Your task to perform on an android device: Show me productivity apps on the Play Store Image 0: 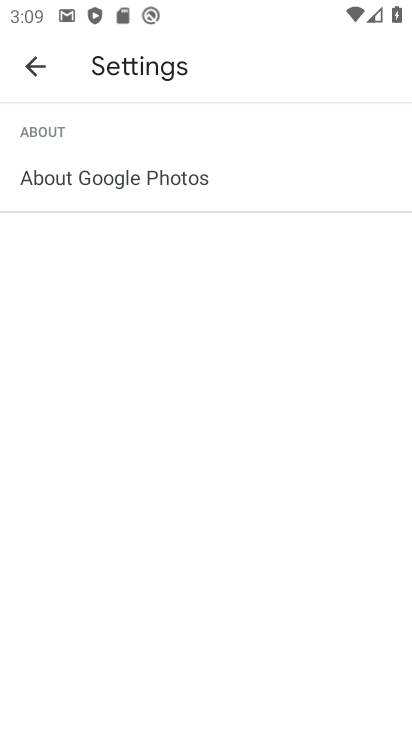
Step 0: press home button
Your task to perform on an android device: Show me productivity apps on the Play Store Image 1: 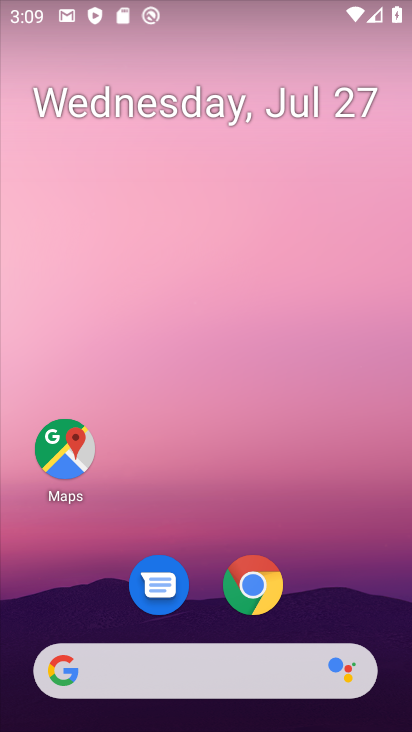
Step 1: drag from (321, 592) to (304, 31)
Your task to perform on an android device: Show me productivity apps on the Play Store Image 2: 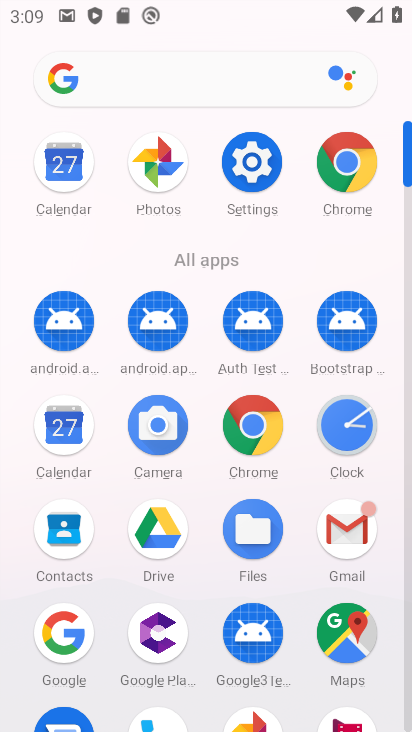
Step 2: drag from (198, 604) to (204, 191)
Your task to perform on an android device: Show me productivity apps on the Play Store Image 3: 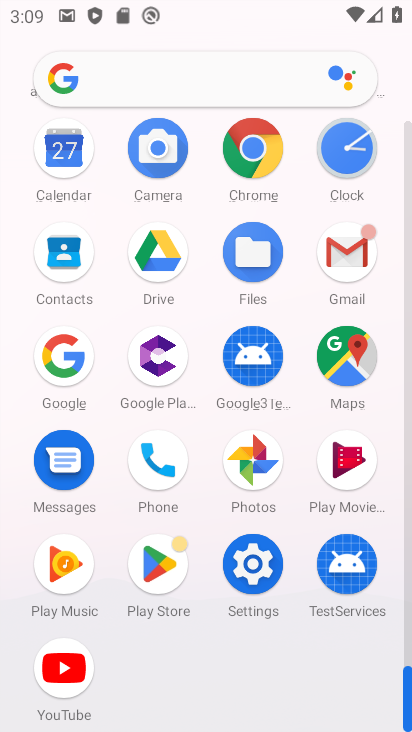
Step 3: click (174, 569)
Your task to perform on an android device: Show me productivity apps on the Play Store Image 4: 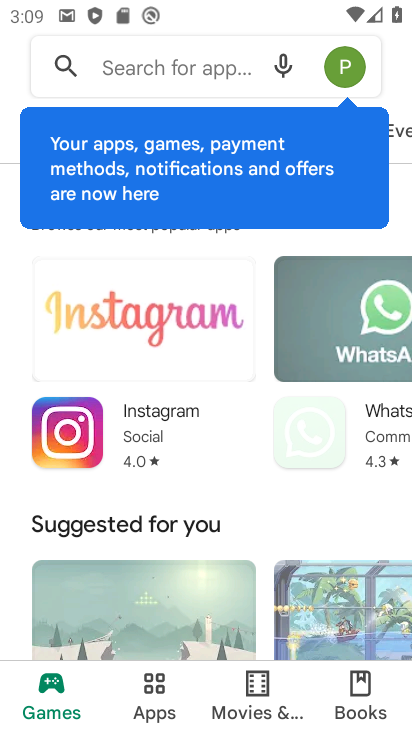
Step 4: click (161, 695)
Your task to perform on an android device: Show me productivity apps on the Play Store Image 5: 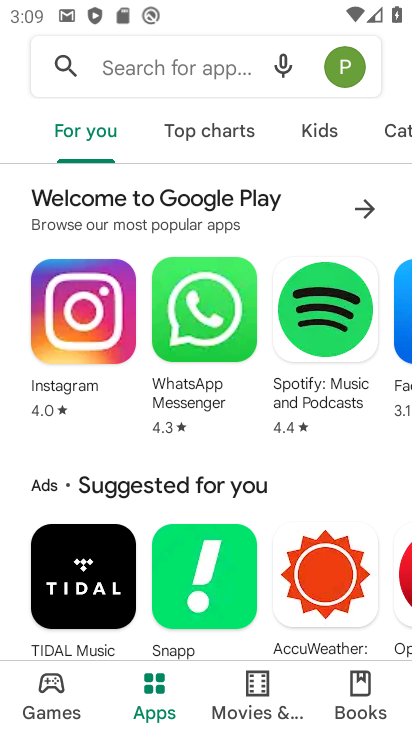
Step 5: click (391, 125)
Your task to perform on an android device: Show me productivity apps on the Play Store Image 6: 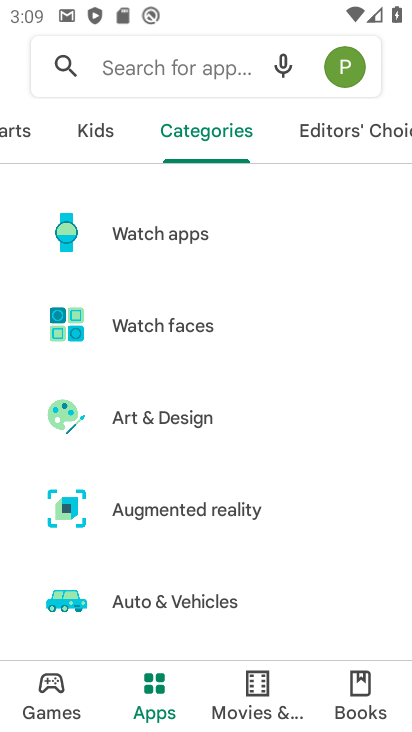
Step 6: drag from (286, 554) to (277, 26)
Your task to perform on an android device: Show me productivity apps on the Play Store Image 7: 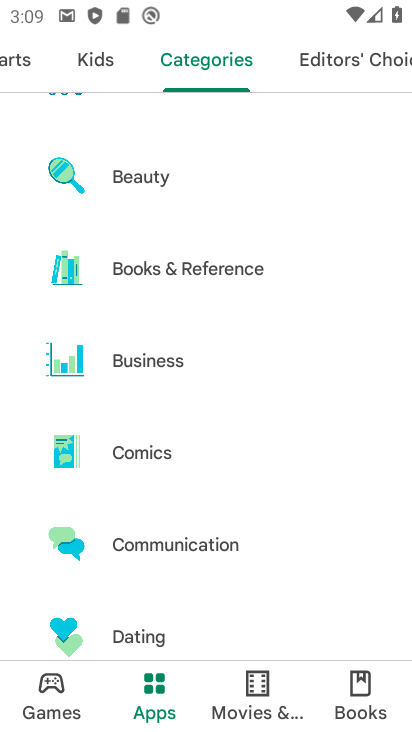
Step 7: drag from (272, 590) to (260, 0)
Your task to perform on an android device: Show me productivity apps on the Play Store Image 8: 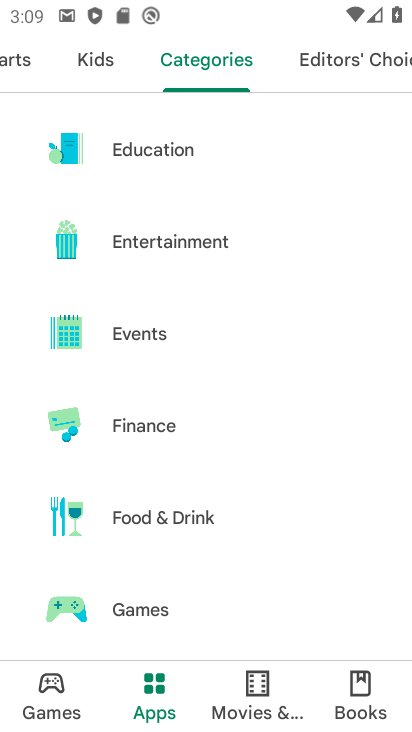
Step 8: drag from (236, 602) to (239, 6)
Your task to perform on an android device: Show me productivity apps on the Play Store Image 9: 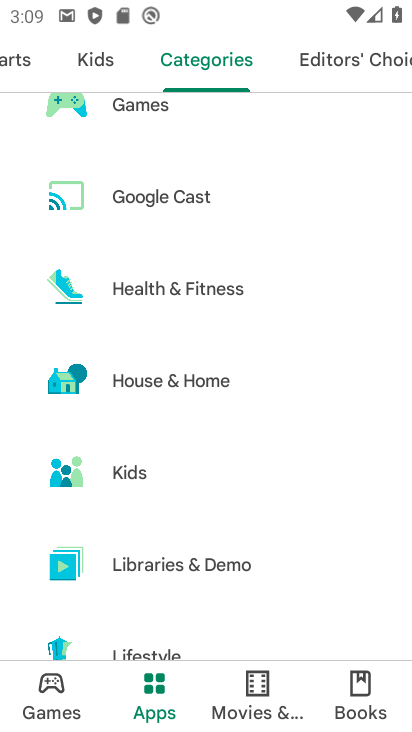
Step 9: drag from (272, 599) to (258, 153)
Your task to perform on an android device: Show me productivity apps on the Play Store Image 10: 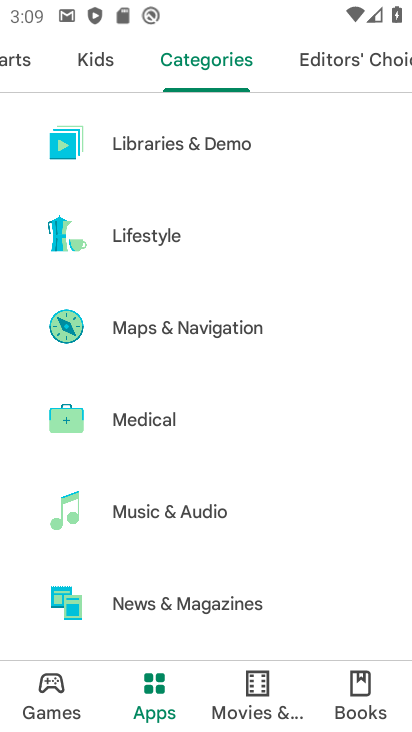
Step 10: drag from (233, 516) to (224, 193)
Your task to perform on an android device: Show me productivity apps on the Play Store Image 11: 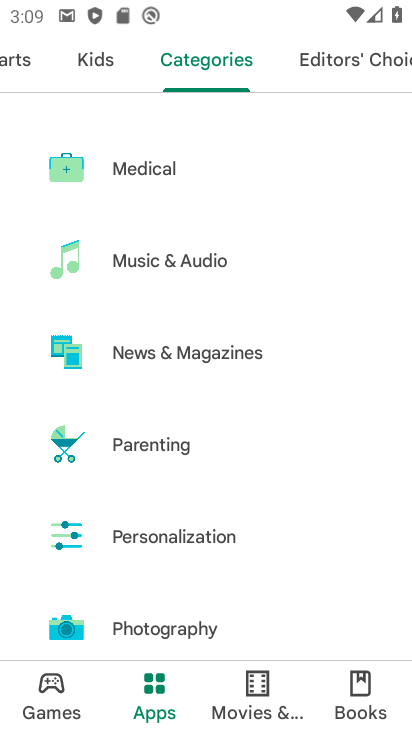
Step 11: drag from (240, 563) to (247, 298)
Your task to perform on an android device: Show me productivity apps on the Play Store Image 12: 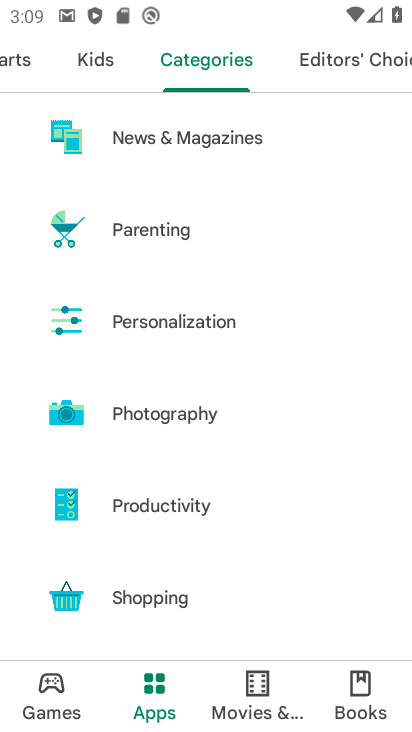
Step 12: click (203, 502)
Your task to perform on an android device: Show me productivity apps on the Play Store Image 13: 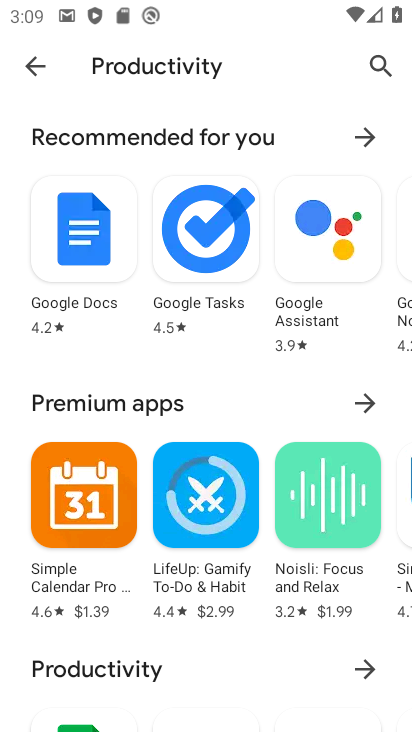
Step 13: click (366, 670)
Your task to perform on an android device: Show me productivity apps on the Play Store Image 14: 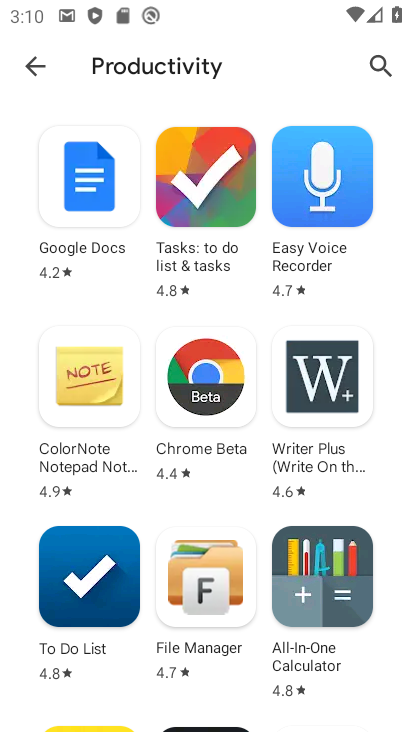
Step 14: task complete